Your task to perform on an android device: Open network settings Image 0: 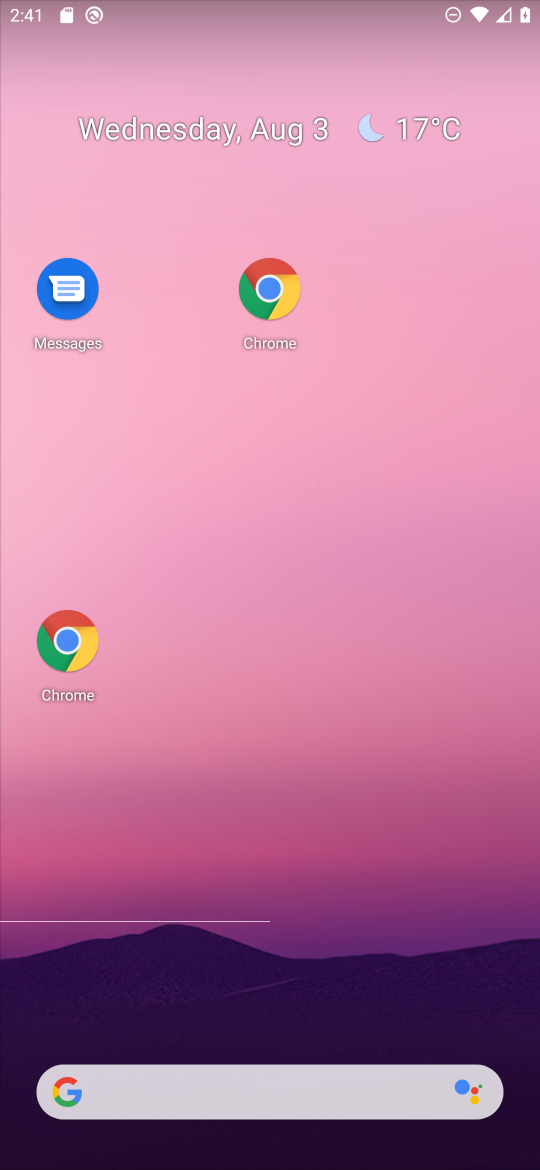
Step 0: drag from (420, 1018) to (422, 50)
Your task to perform on an android device: Open network settings Image 1: 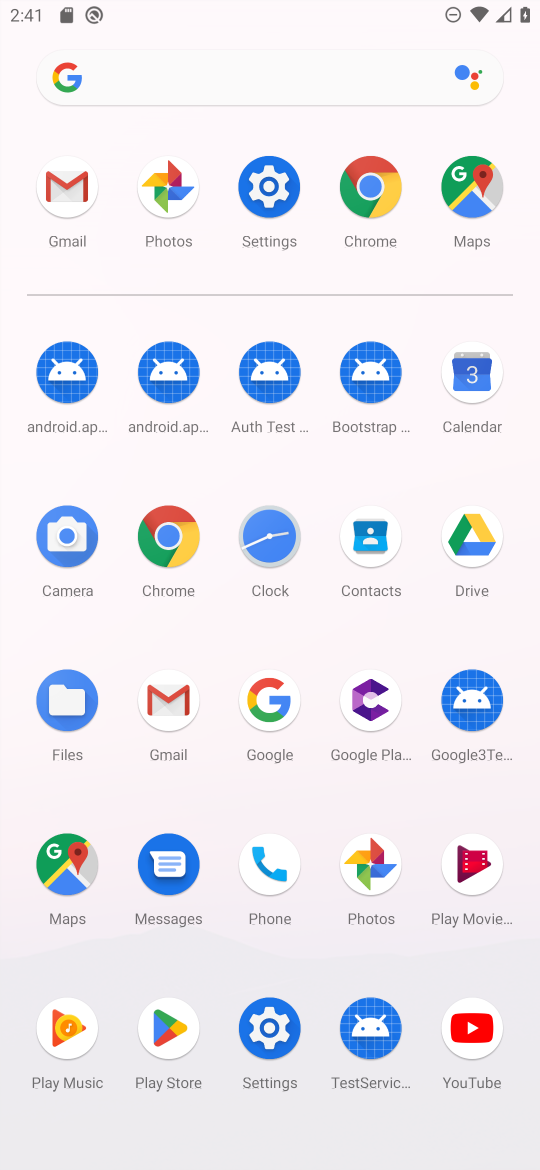
Step 1: click (249, 187)
Your task to perform on an android device: Open network settings Image 2: 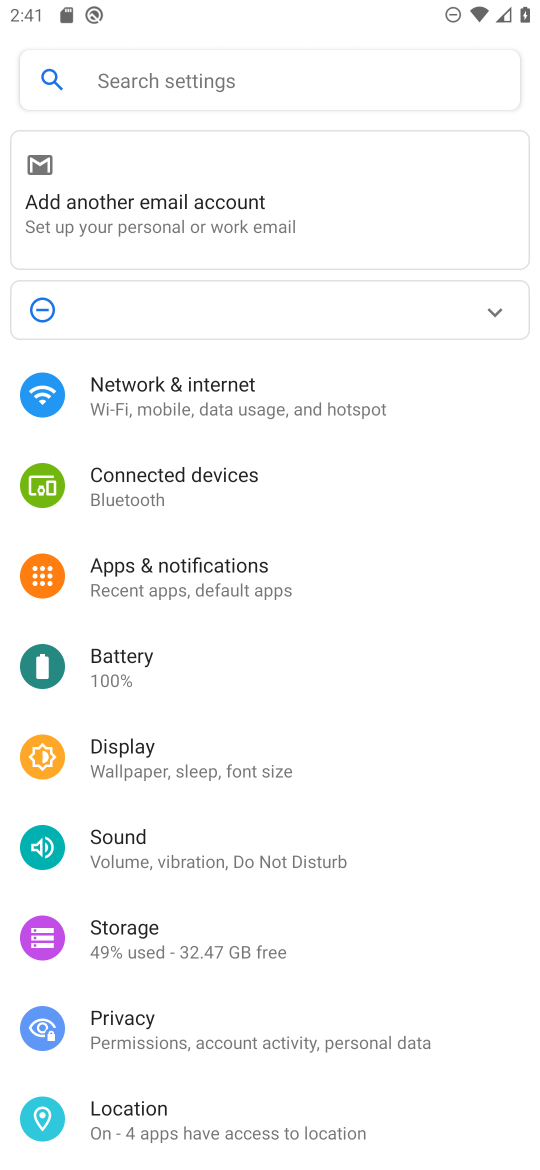
Step 2: click (296, 390)
Your task to perform on an android device: Open network settings Image 3: 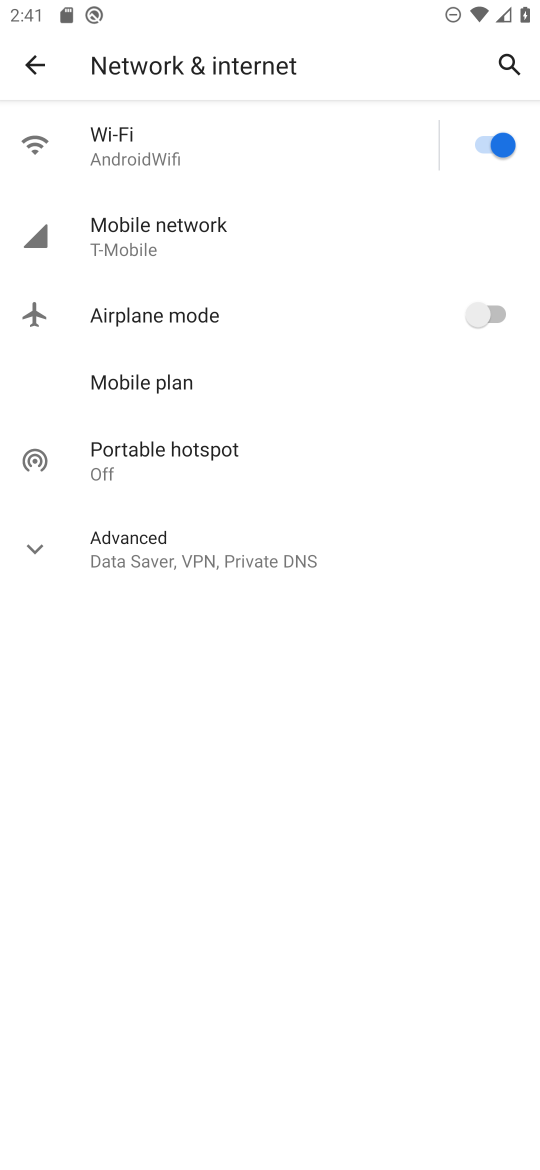
Step 3: task complete